Your task to perform on an android device: Open Chrome and go to the settings page Image 0: 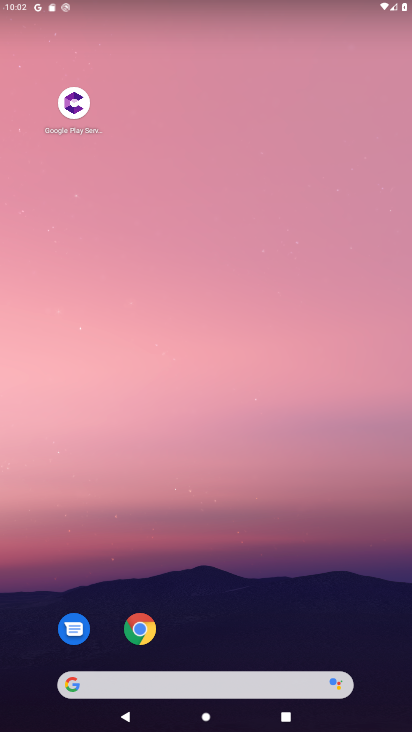
Step 0: click (141, 628)
Your task to perform on an android device: Open Chrome and go to the settings page Image 1: 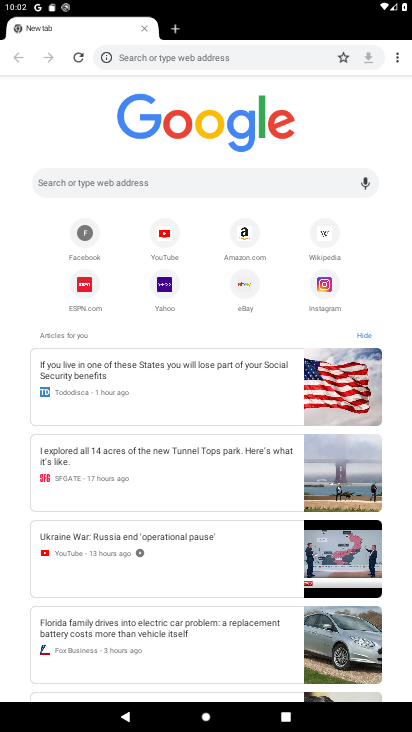
Step 1: click (399, 55)
Your task to perform on an android device: Open Chrome and go to the settings page Image 2: 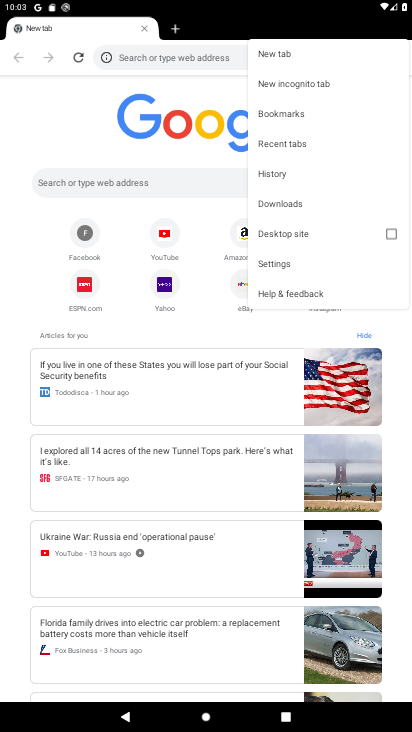
Step 2: click (286, 271)
Your task to perform on an android device: Open Chrome and go to the settings page Image 3: 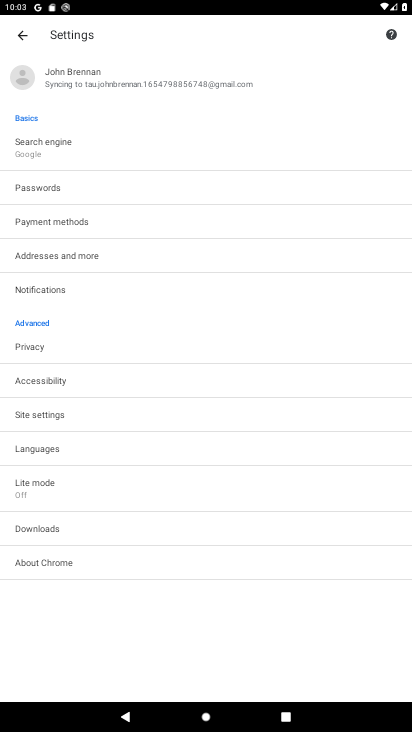
Step 3: task complete